Your task to perform on an android device: star an email in the gmail app Image 0: 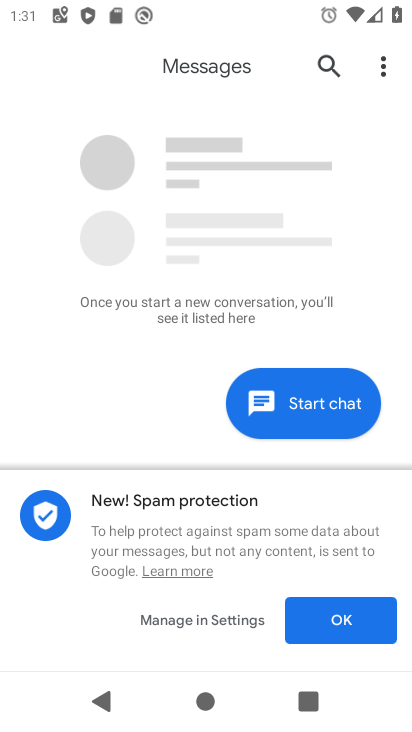
Step 0: press home button
Your task to perform on an android device: star an email in the gmail app Image 1: 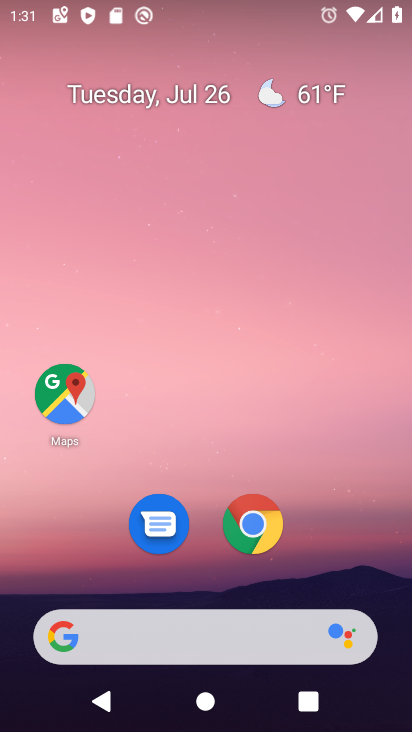
Step 1: drag from (143, 638) to (242, 106)
Your task to perform on an android device: star an email in the gmail app Image 2: 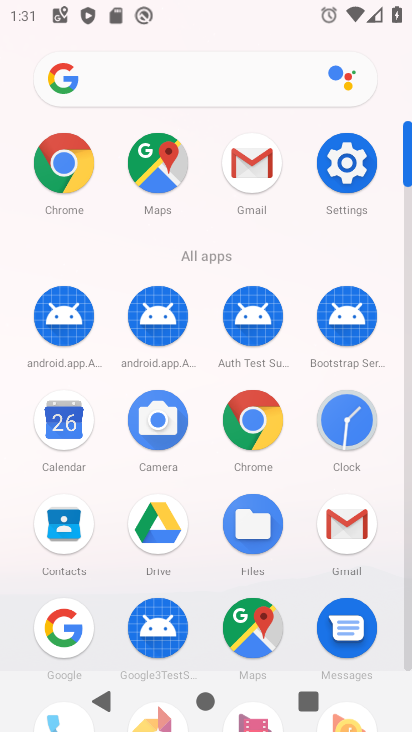
Step 2: click (253, 164)
Your task to perform on an android device: star an email in the gmail app Image 3: 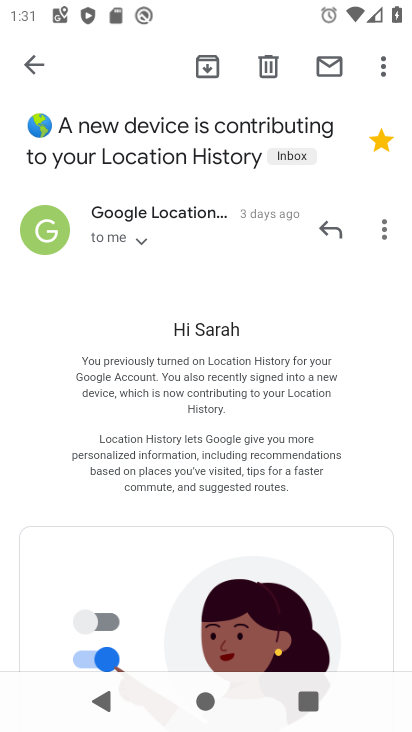
Step 3: click (27, 60)
Your task to perform on an android device: star an email in the gmail app Image 4: 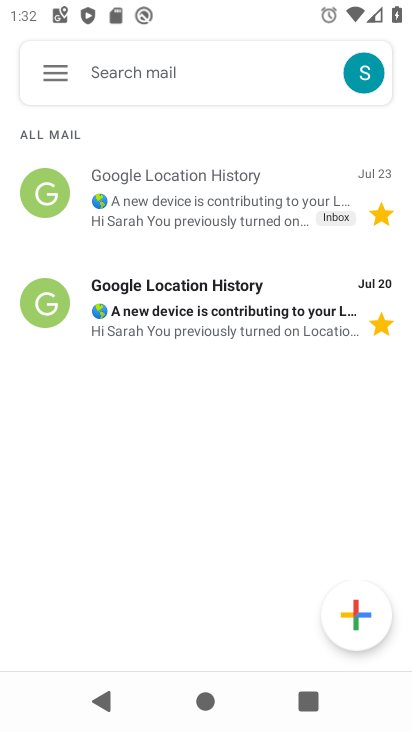
Step 4: task complete